Your task to perform on an android device: Open Google Maps Image 0: 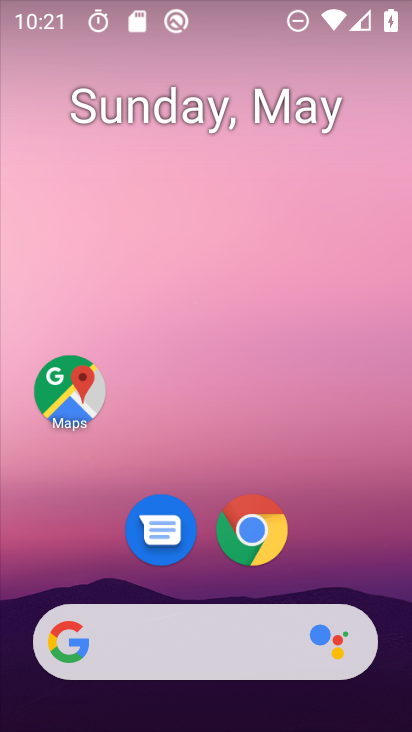
Step 0: drag from (267, 669) to (323, 91)
Your task to perform on an android device: Open Google Maps Image 1: 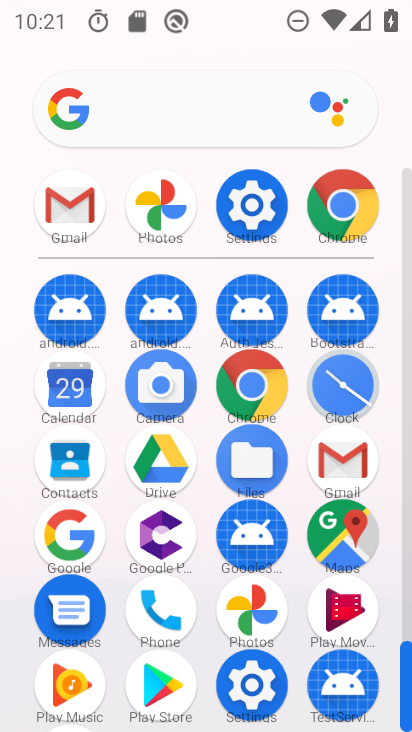
Step 1: click (360, 521)
Your task to perform on an android device: Open Google Maps Image 2: 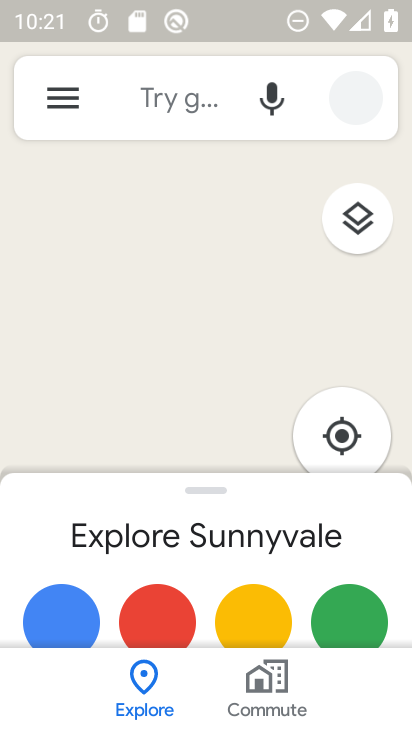
Step 2: click (169, 260)
Your task to perform on an android device: Open Google Maps Image 3: 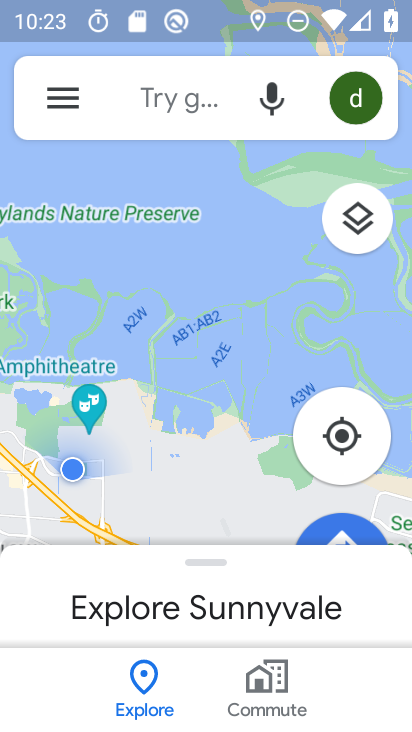
Step 3: task complete